Your task to perform on an android device: open app "Indeed Job Search" Image 0: 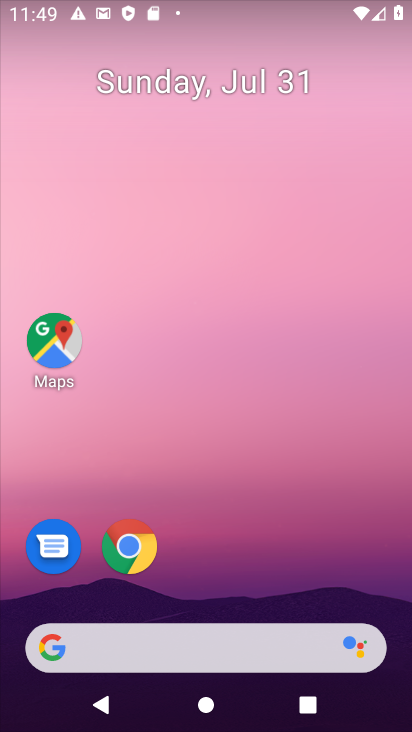
Step 0: drag from (195, 420) to (167, 130)
Your task to perform on an android device: open app "Indeed Job Search" Image 1: 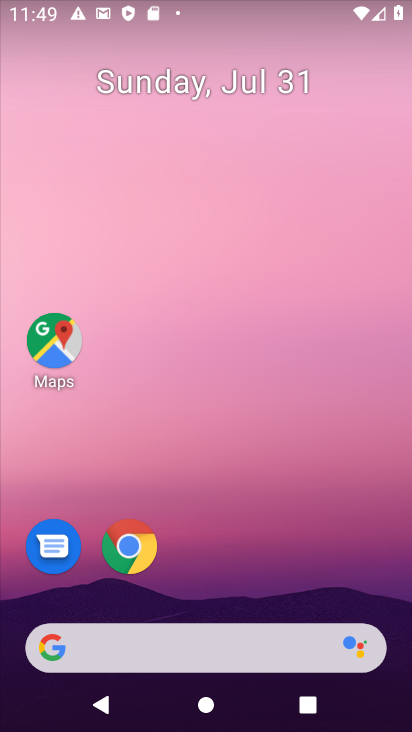
Step 1: drag from (196, 629) to (162, 8)
Your task to perform on an android device: open app "Indeed Job Search" Image 2: 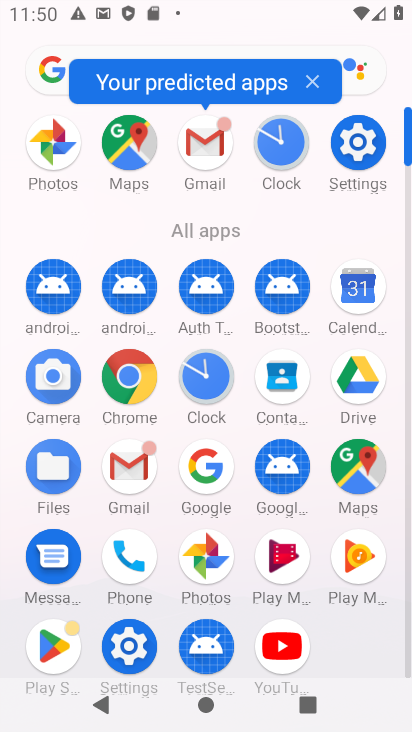
Step 2: click (62, 639)
Your task to perform on an android device: open app "Indeed Job Search" Image 3: 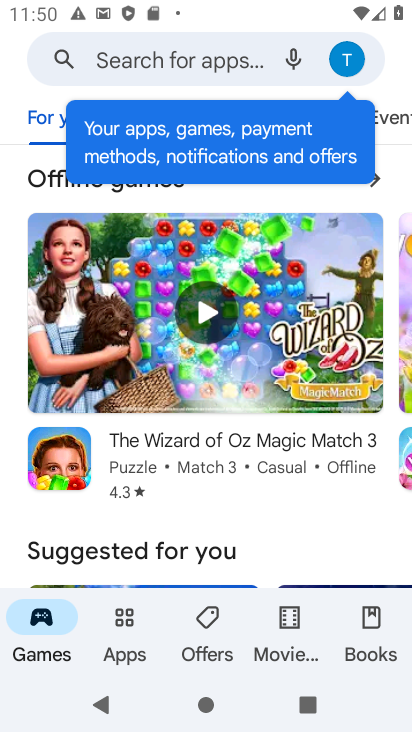
Step 3: click (247, 58)
Your task to perform on an android device: open app "Indeed Job Search" Image 4: 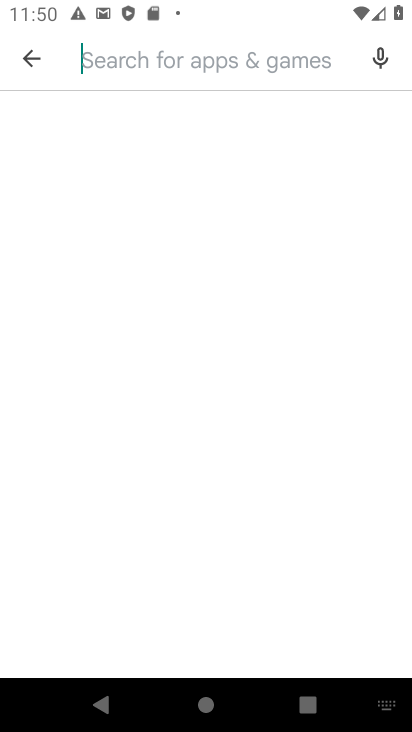
Step 4: type "Indeed Job Search"
Your task to perform on an android device: open app "Indeed Job Search" Image 5: 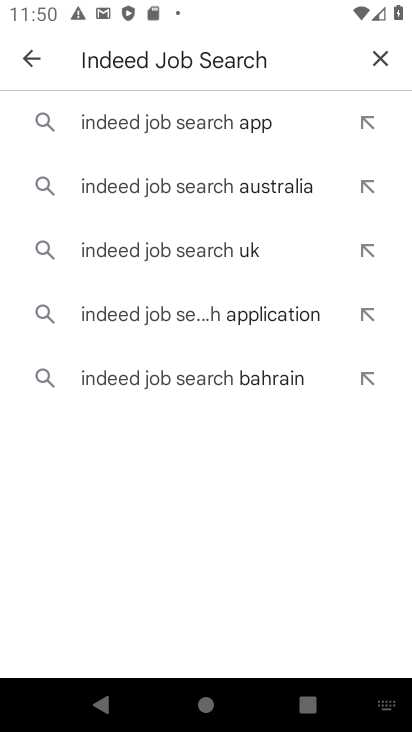
Step 5: click (197, 133)
Your task to perform on an android device: open app "Indeed Job Search" Image 6: 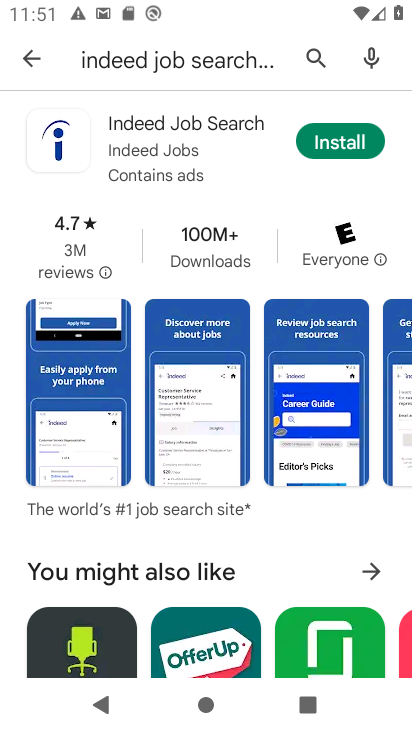
Step 6: task complete